Your task to perform on an android device: find photos in the google photos app Image 0: 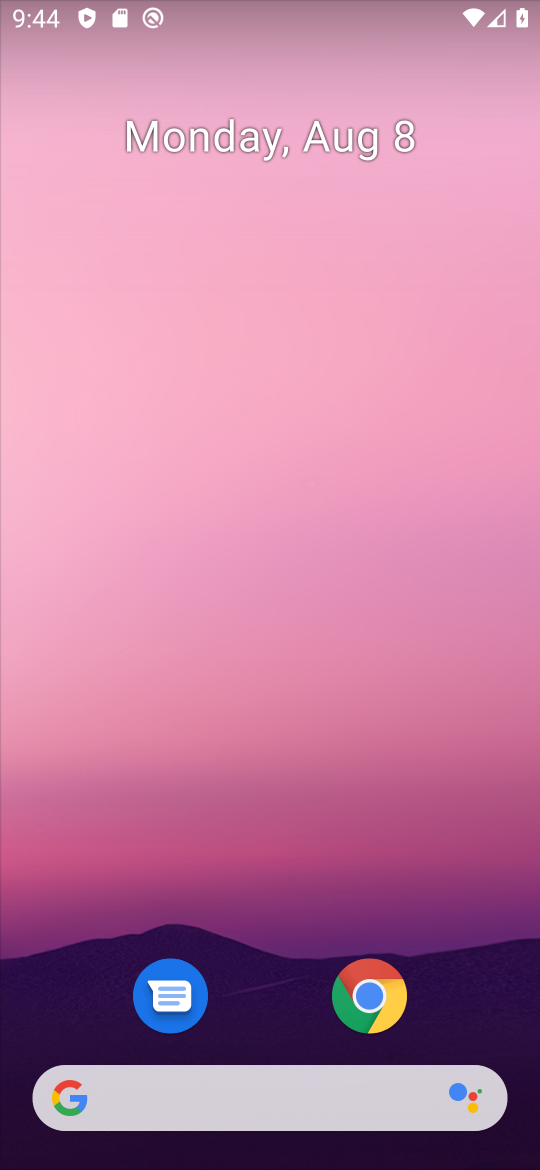
Step 0: click (370, 1001)
Your task to perform on an android device: find photos in the google photos app Image 1: 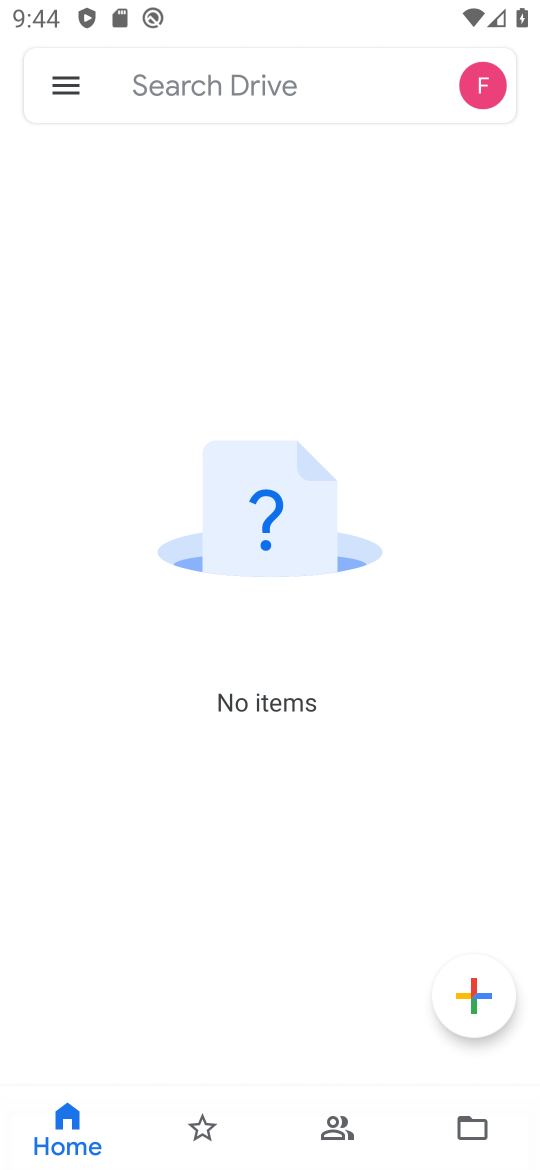
Step 1: press home button
Your task to perform on an android device: find photos in the google photos app Image 2: 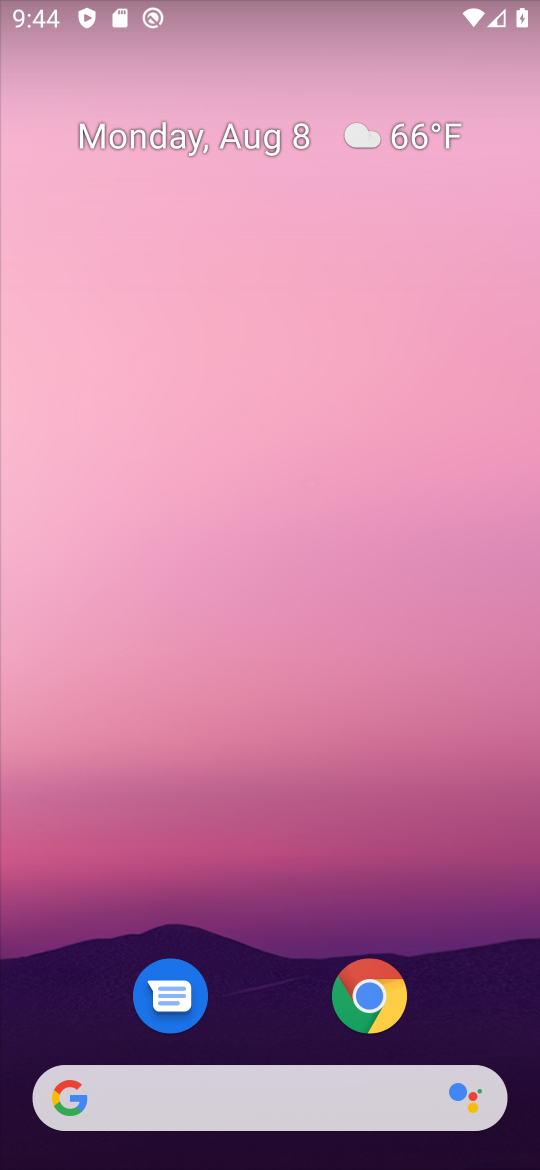
Step 2: drag from (262, 1024) to (240, 265)
Your task to perform on an android device: find photos in the google photos app Image 3: 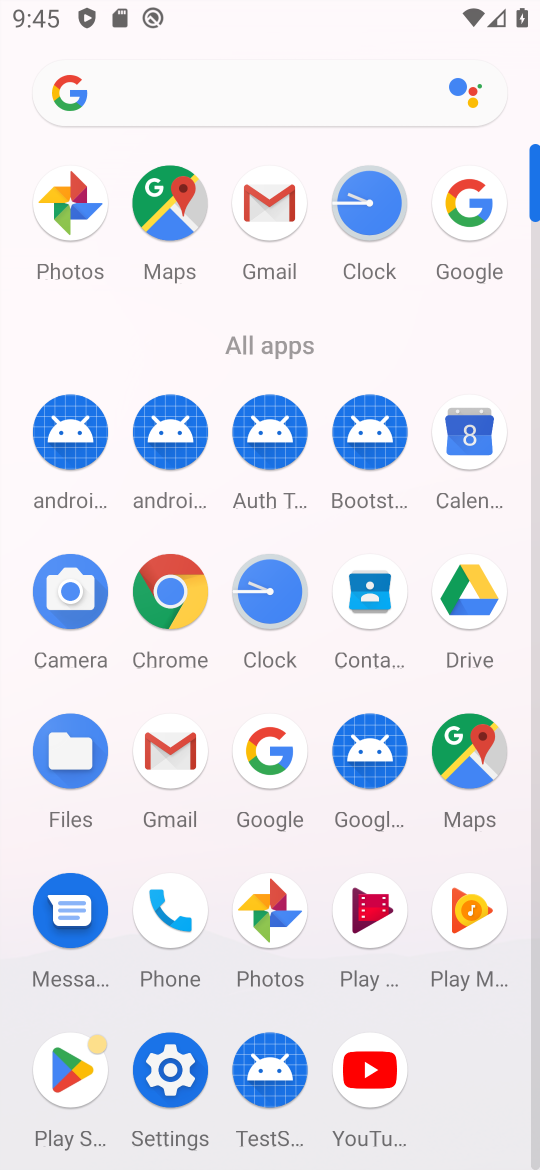
Step 3: click (260, 896)
Your task to perform on an android device: find photos in the google photos app Image 4: 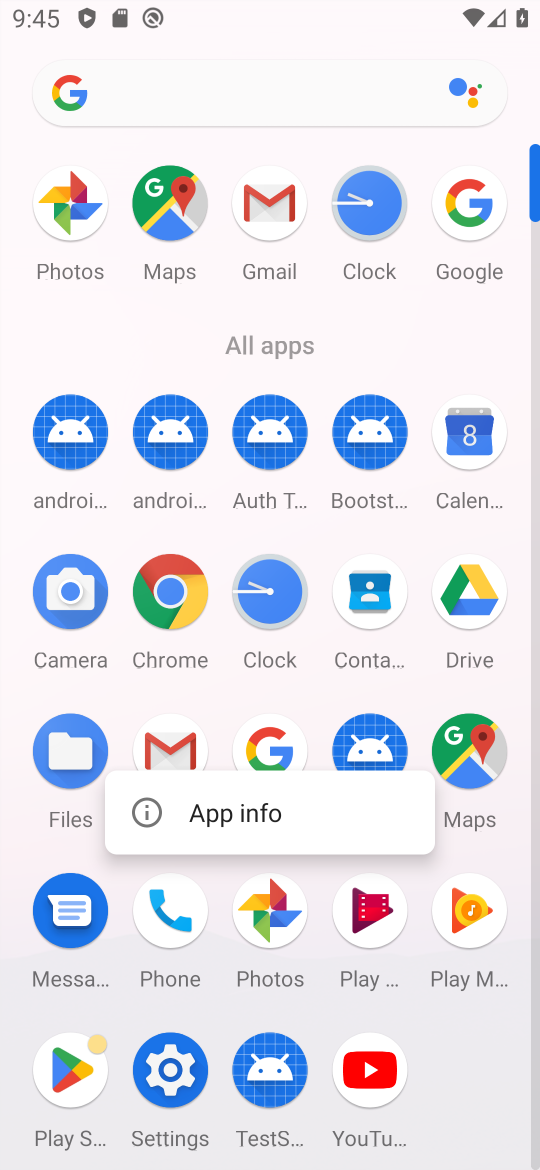
Step 4: click (271, 912)
Your task to perform on an android device: find photos in the google photos app Image 5: 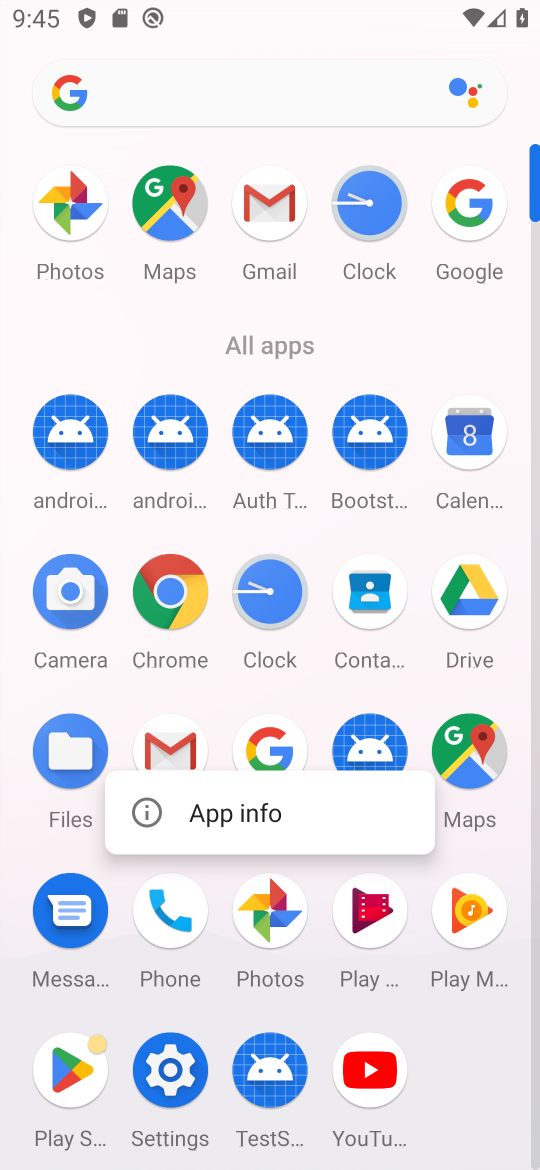
Step 5: click (266, 914)
Your task to perform on an android device: find photos in the google photos app Image 6: 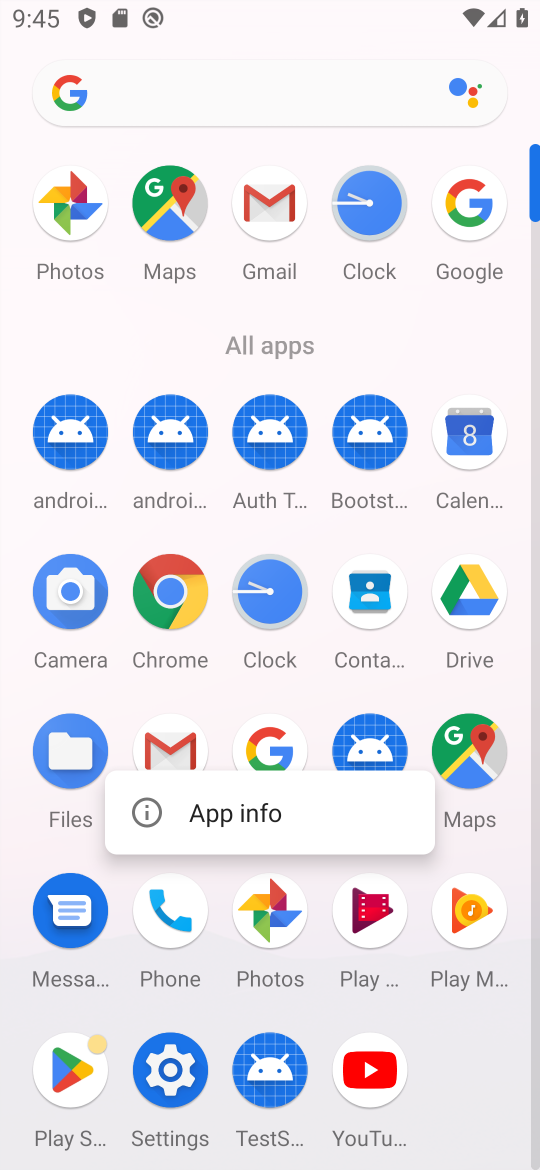
Step 6: click (274, 914)
Your task to perform on an android device: find photos in the google photos app Image 7: 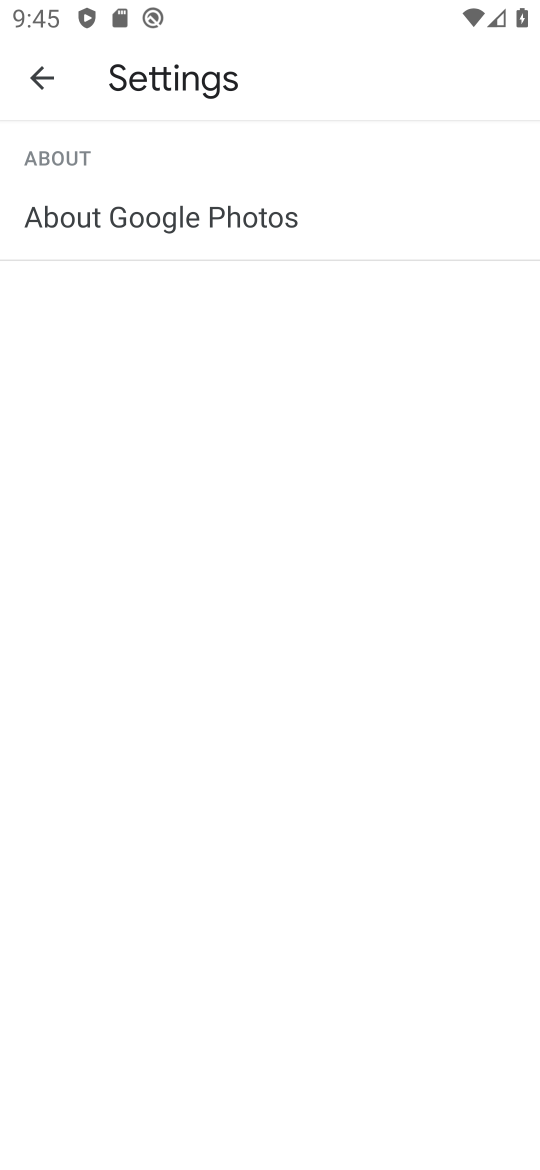
Step 7: click (48, 82)
Your task to perform on an android device: find photos in the google photos app Image 8: 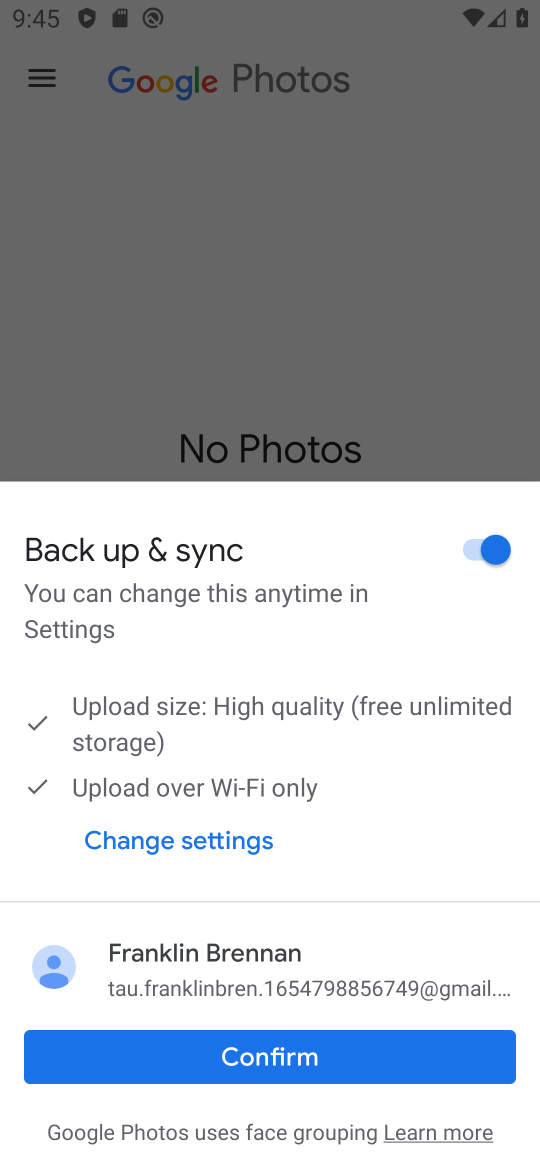
Step 8: click (300, 1063)
Your task to perform on an android device: find photos in the google photos app Image 9: 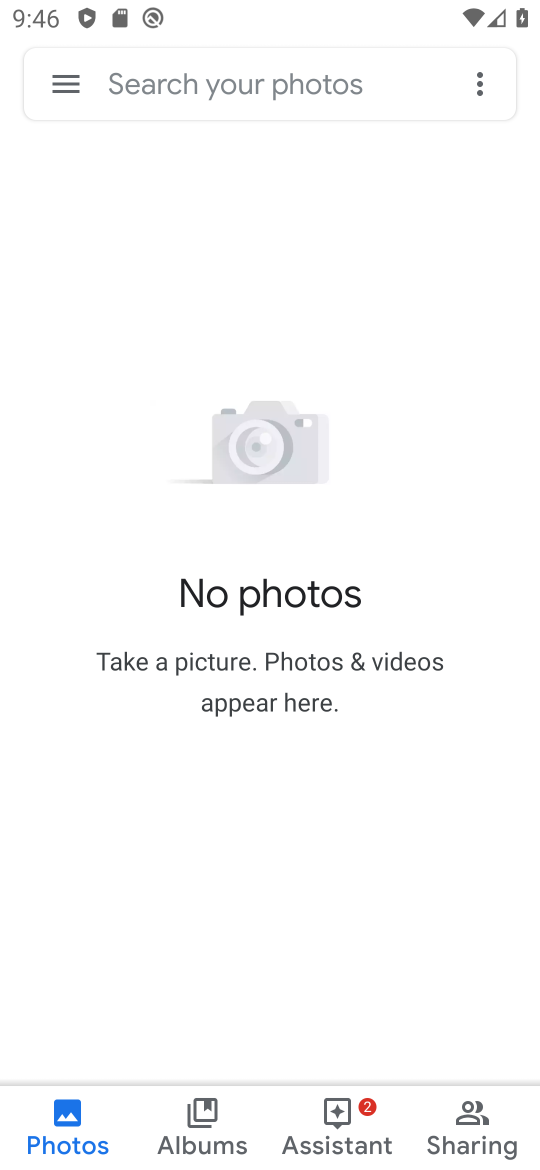
Step 9: task complete